Your task to perform on an android device: Turn off the flashlight Image 0: 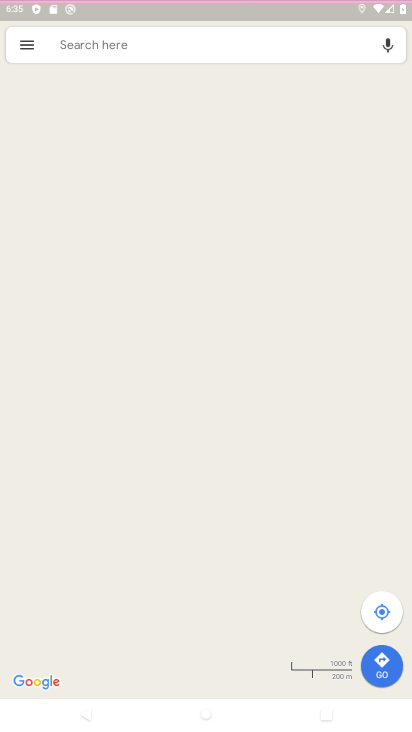
Step 0: drag from (264, 630) to (250, 17)
Your task to perform on an android device: Turn off the flashlight Image 1: 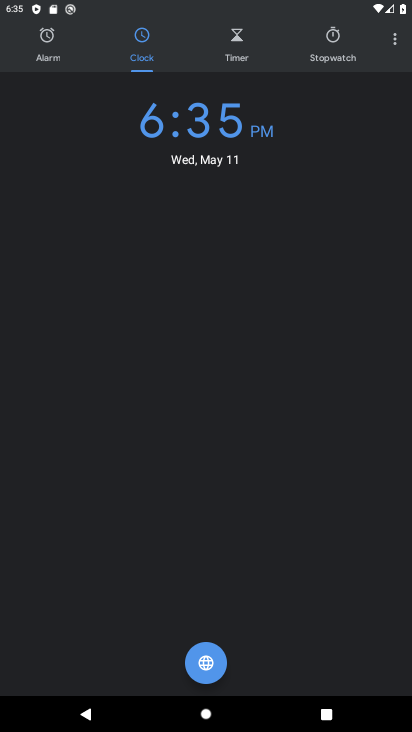
Step 1: press home button
Your task to perform on an android device: Turn off the flashlight Image 2: 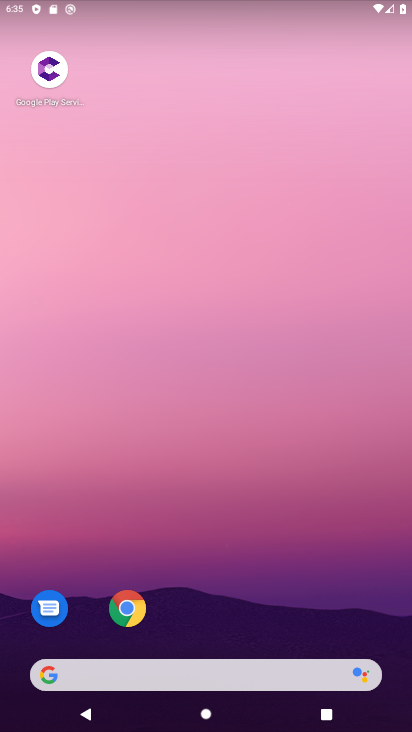
Step 2: drag from (295, 565) to (294, 99)
Your task to perform on an android device: Turn off the flashlight Image 3: 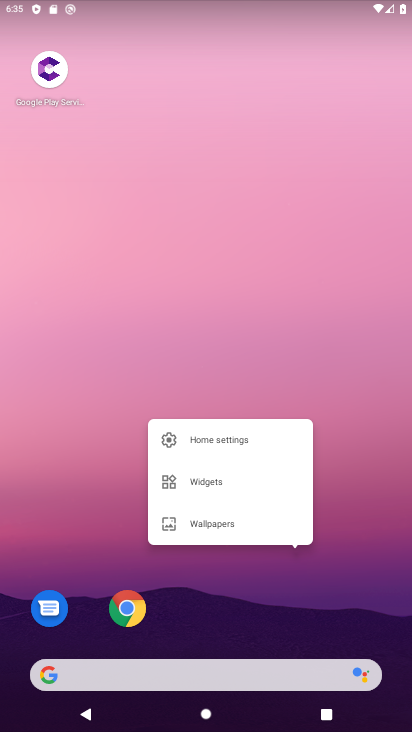
Step 3: click (339, 572)
Your task to perform on an android device: Turn off the flashlight Image 4: 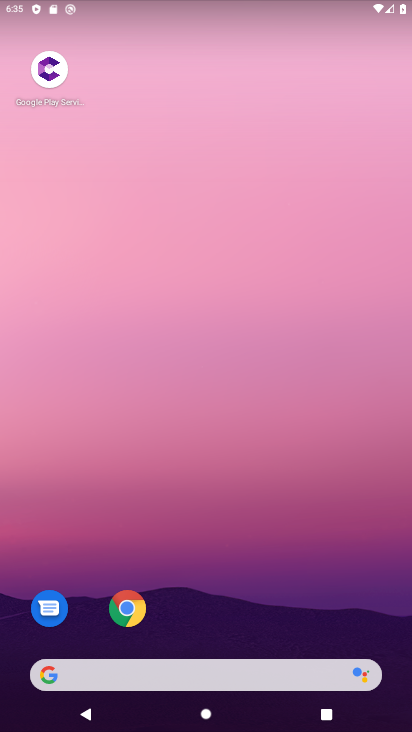
Step 4: drag from (303, 612) to (289, 2)
Your task to perform on an android device: Turn off the flashlight Image 5: 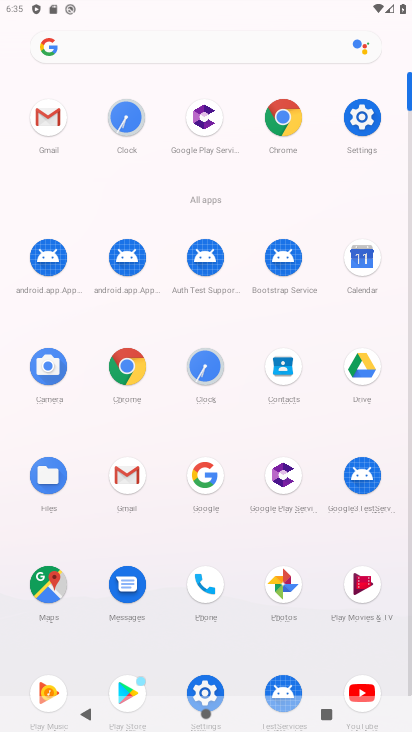
Step 5: click (349, 121)
Your task to perform on an android device: Turn off the flashlight Image 6: 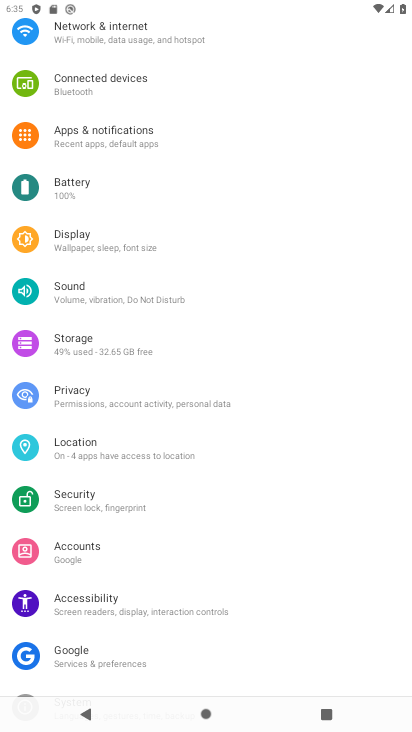
Step 6: task complete